Your task to perform on an android device: Go to Android settings Image 0: 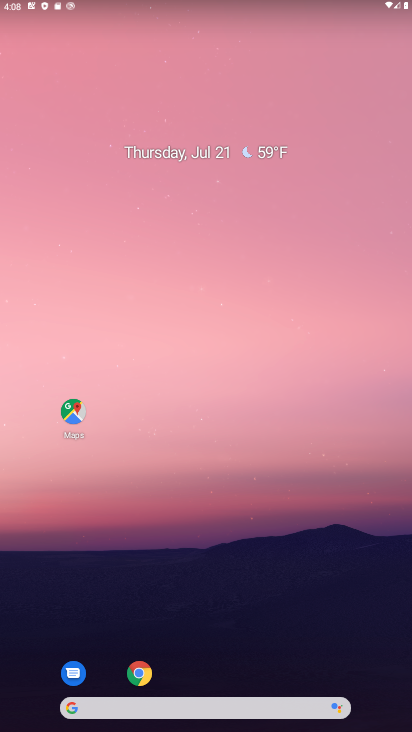
Step 0: drag from (382, 681) to (322, 127)
Your task to perform on an android device: Go to Android settings Image 1: 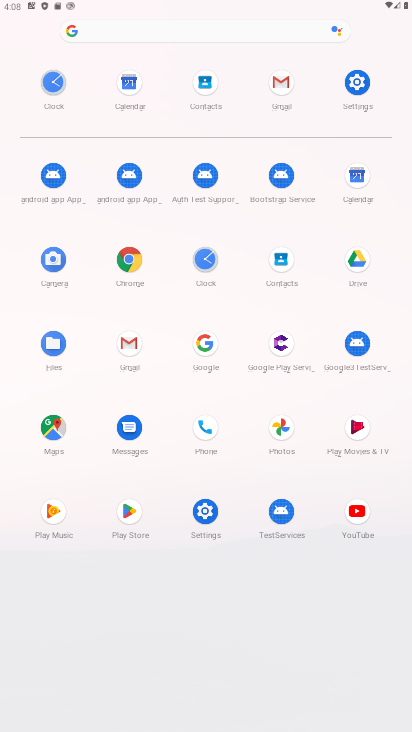
Step 1: click (204, 512)
Your task to perform on an android device: Go to Android settings Image 2: 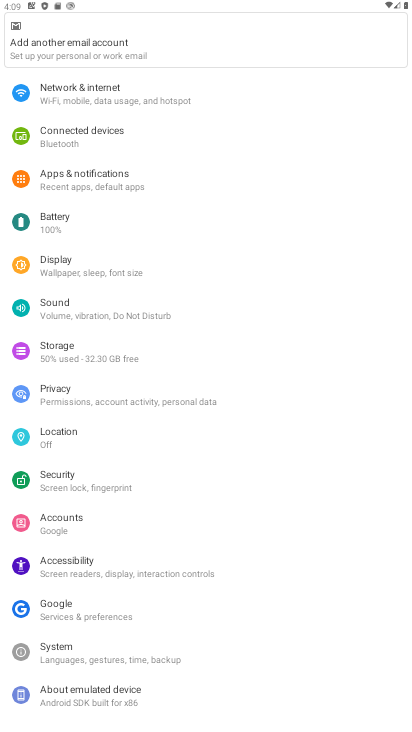
Step 2: drag from (236, 603) to (226, 276)
Your task to perform on an android device: Go to Android settings Image 3: 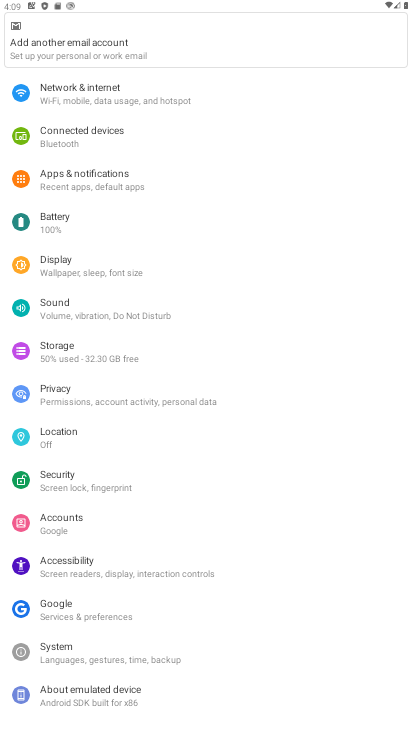
Step 3: click (74, 689)
Your task to perform on an android device: Go to Android settings Image 4: 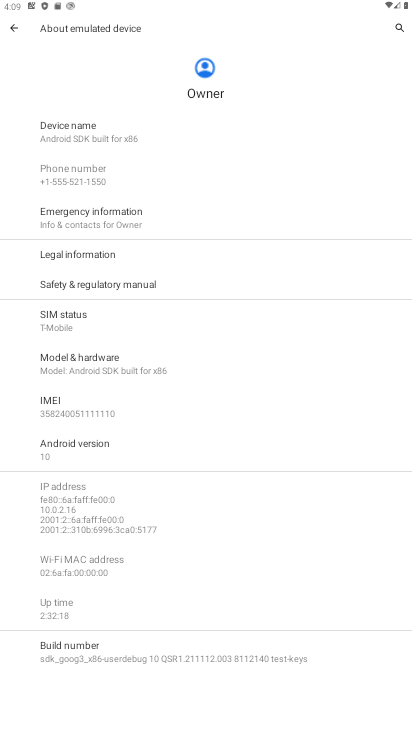
Step 4: task complete